Your task to perform on an android device: Search for vegetarian restaurants on Maps Image 0: 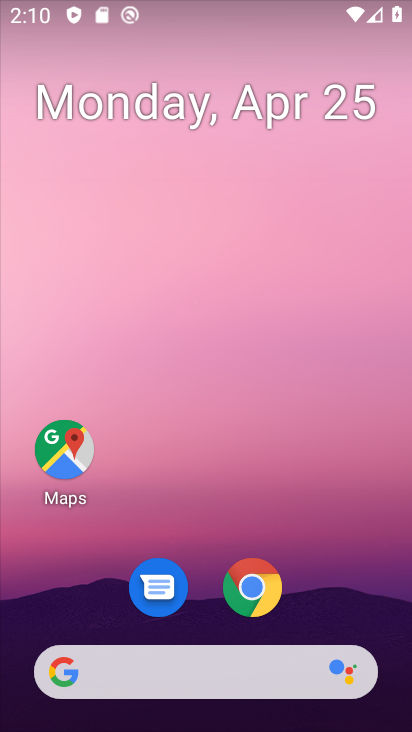
Step 0: drag from (295, 705) to (98, 721)
Your task to perform on an android device: Search for vegetarian restaurants on Maps Image 1: 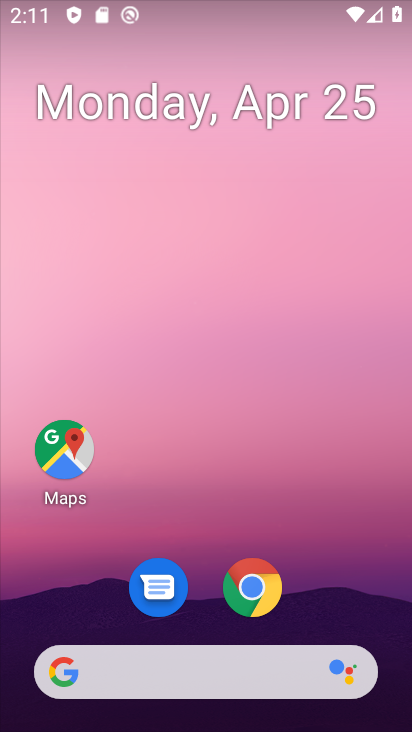
Step 1: click (44, 454)
Your task to perform on an android device: Search for vegetarian restaurants on Maps Image 2: 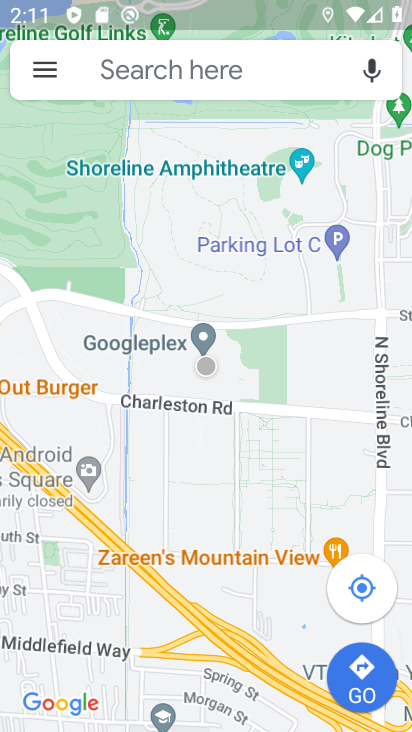
Step 2: click (266, 70)
Your task to perform on an android device: Search for vegetarian restaurants on Maps Image 3: 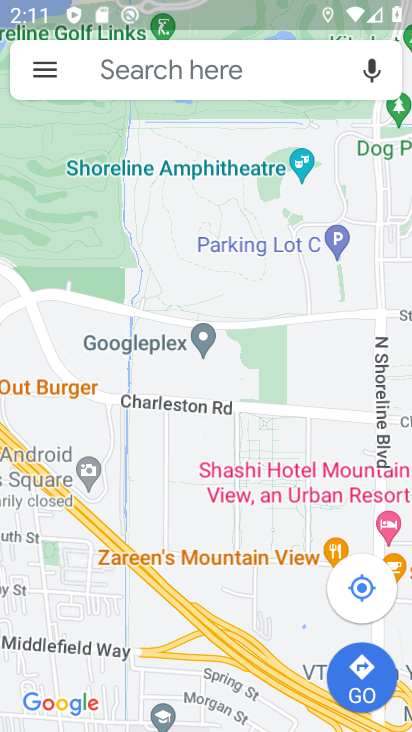
Step 3: click (266, 70)
Your task to perform on an android device: Search for vegetarian restaurants on Maps Image 4: 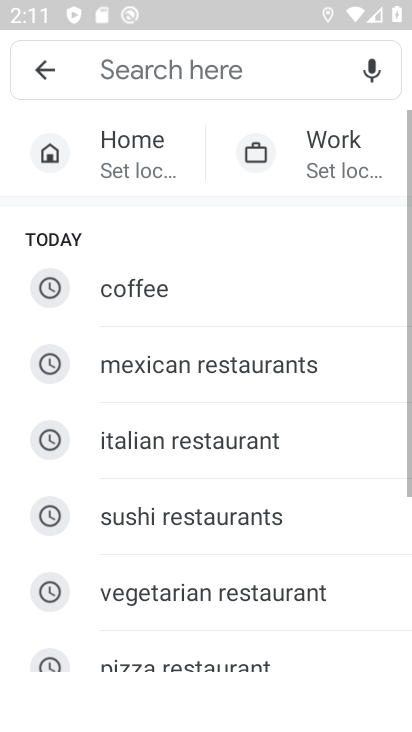
Step 4: click (264, 72)
Your task to perform on an android device: Search for vegetarian restaurants on Maps Image 5: 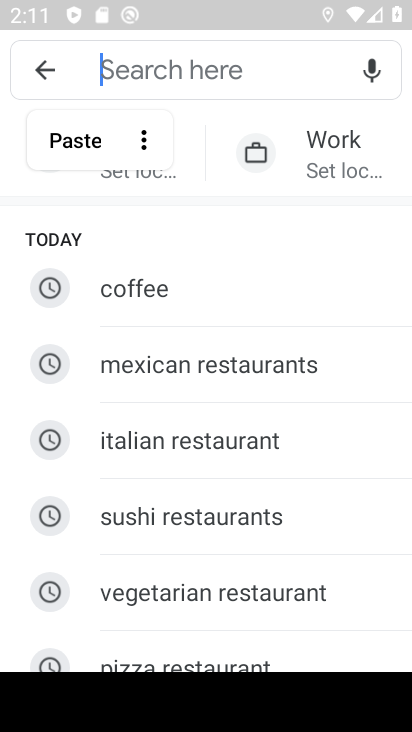
Step 5: type " vegetarian restaurants"
Your task to perform on an android device: Search for vegetarian restaurants on Maps Image 6: 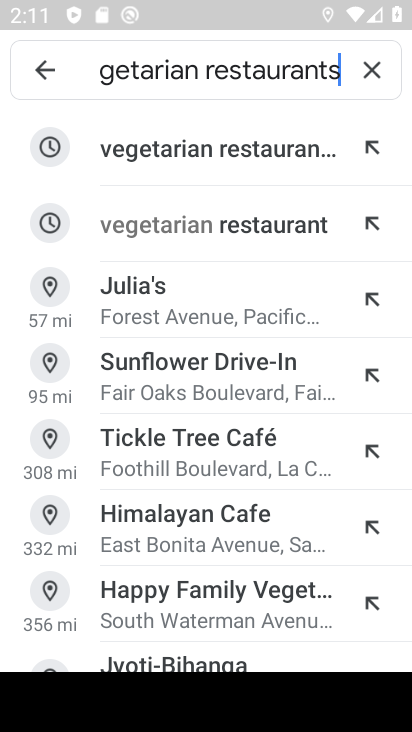
Step 6: task complete